Your task to perform on an android device: show emergency info Image 0: 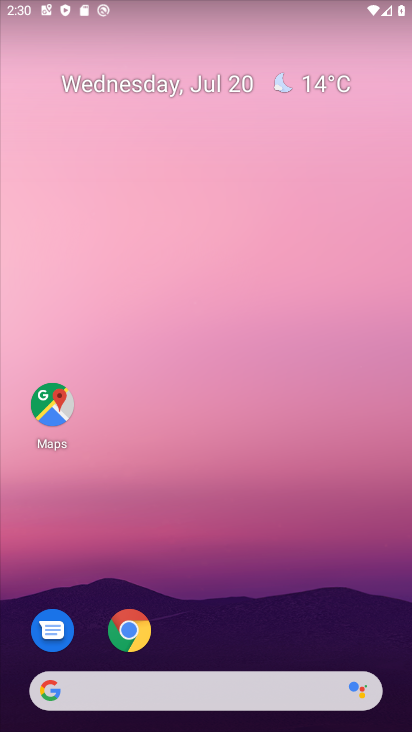
Step 0: drag from (283, 700) to (202, 165)
Your task to perform on an android device: show emergency info Image 1: 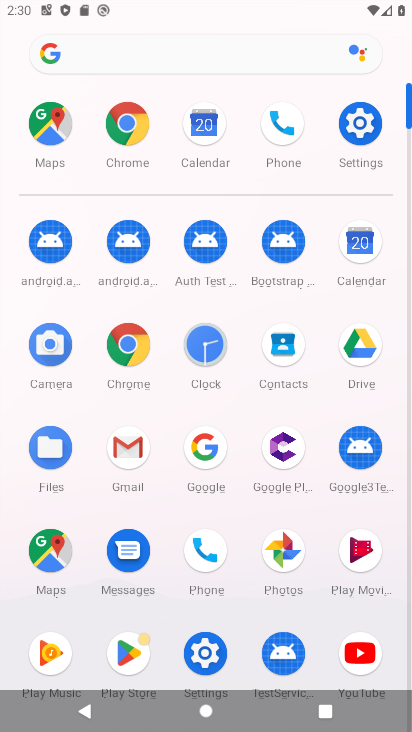
Step 1: click (350, 129)
Your task to perform on an android device: show emergency info Image 2: 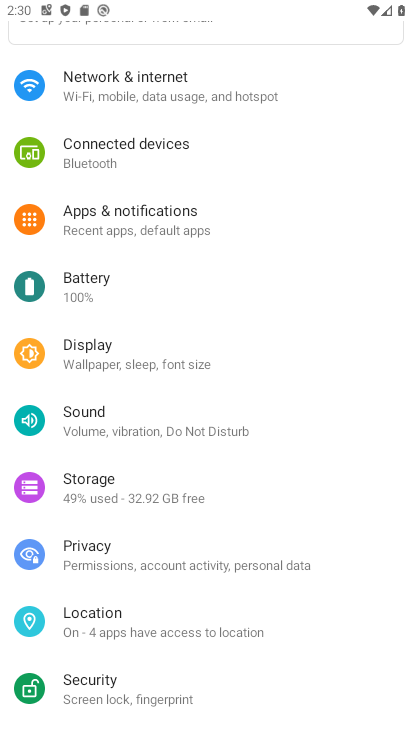
Step 2: drag from (139, 87) to (191, 280)
Your task to perform on an android device: show emergency info Image 3: 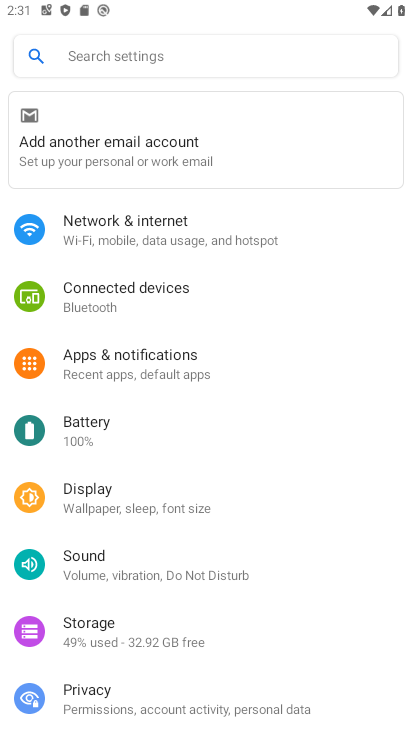
Step 3: click (93, 55)
Your task to perform on an android device: show emergency info Image 4: 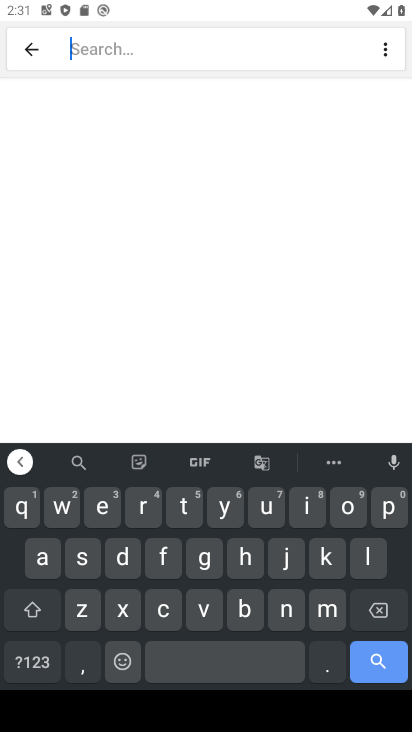
Step 4: click (92, 506)
Your task to perform on an android device: show emergency info Image 5: 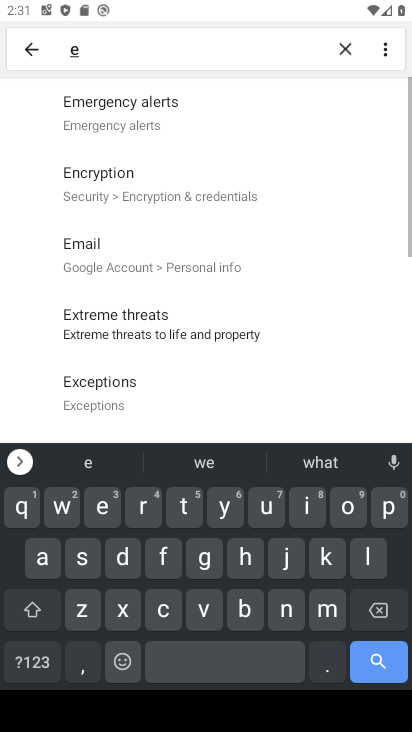
Step 5: click (326, 615)
Your task to perform on an android device: show emergency info Image 6: 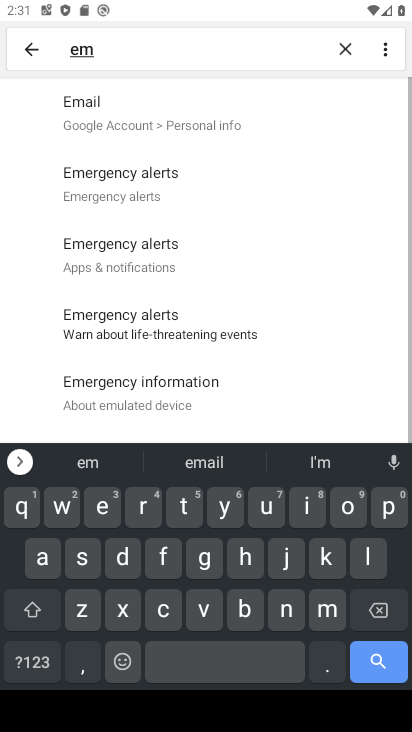
Step 6: click (109, 510)
Your task to perform on an android device: show emergency info Image 7: 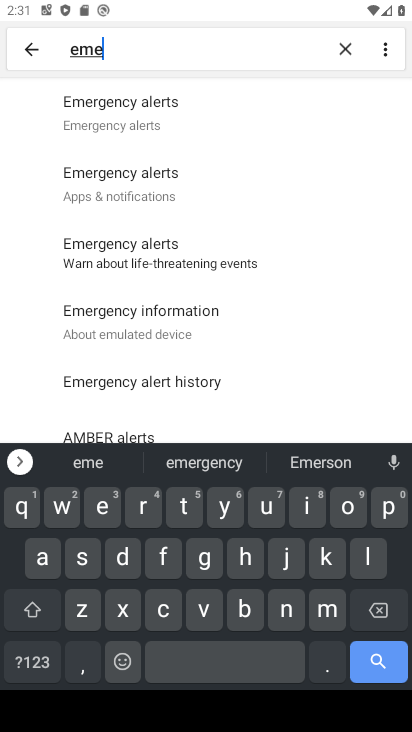
Step 7: click (175, 469)
Your task to perform on an android device: show emergency info Image 8: 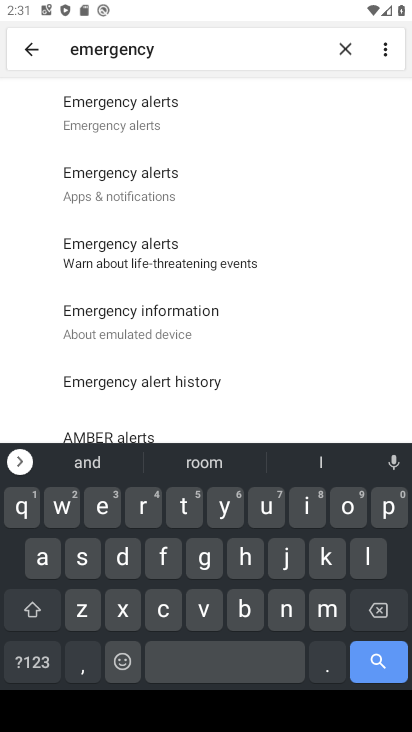
Step 8: click (302, 521)
Your task to perform on an android device: show emergency info Image 9: 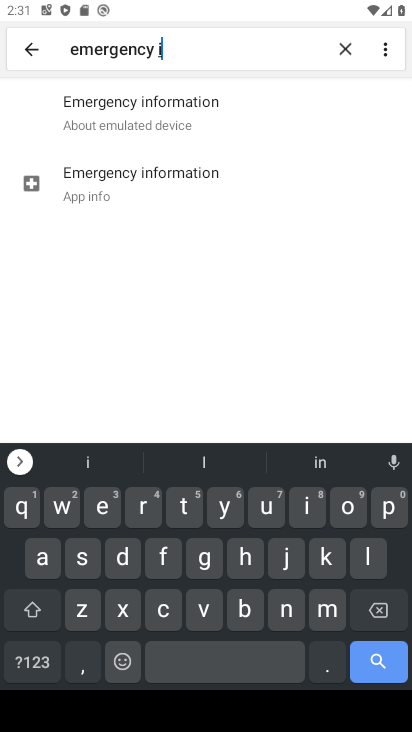
Step 9: click (147, 107)
Your task to perform on an android device: show emergency info Image 10: 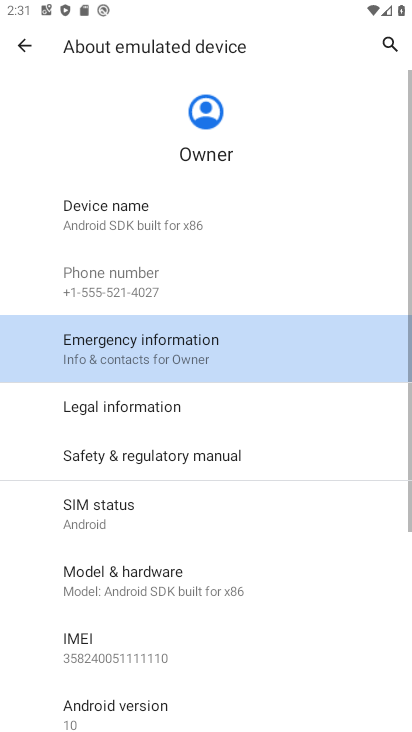
Step 10: click (142, 353)
Your task to perform on an android device: show emergency info Image 11: 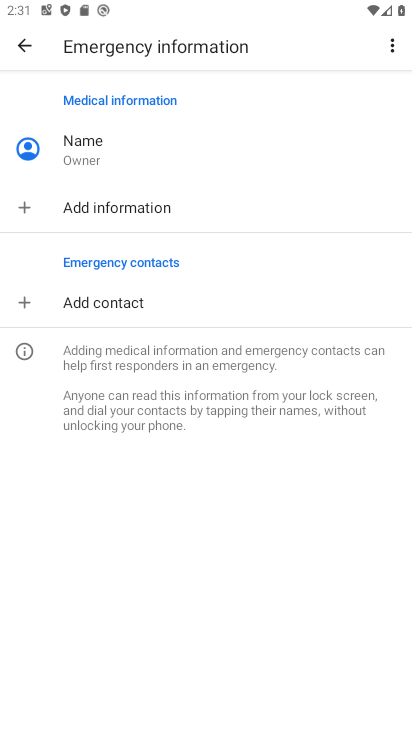
Step 11: task complete